Your task to perform on an android device: install app "VLC for Android" Image 0: 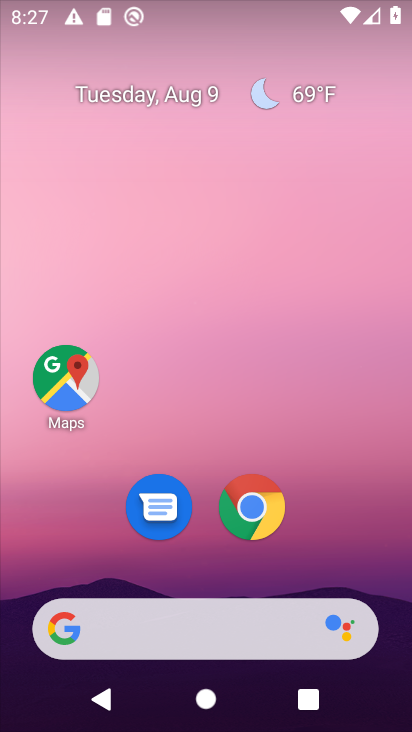
Step 0: drag from (203, 650) to (207, 231)
Your task to perform on an android device: install app "VLC for Android" Image 1: 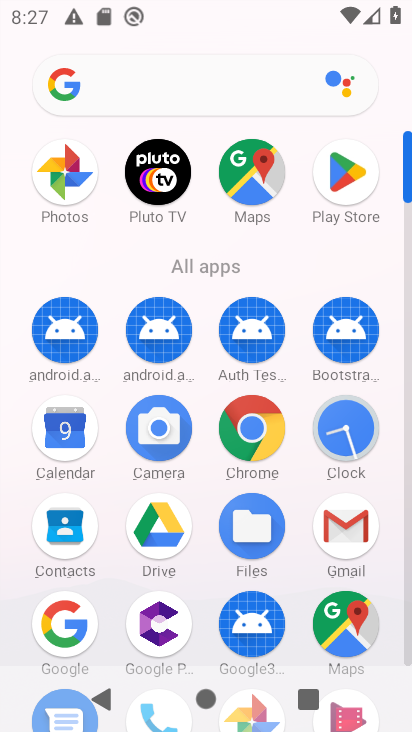
Step 1: click (347, 168)
Your task to perform on an android device: install app "VLC for Android" Image 2: 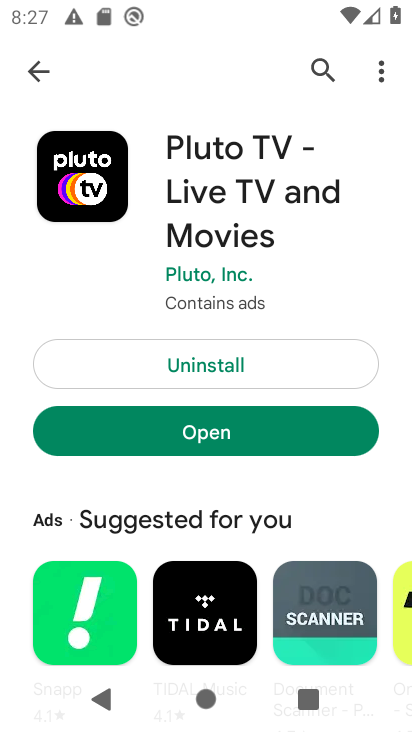
Step 2: click (330, 66)
Your task to perform on an android device: install app "VLC for Android" Image 3: 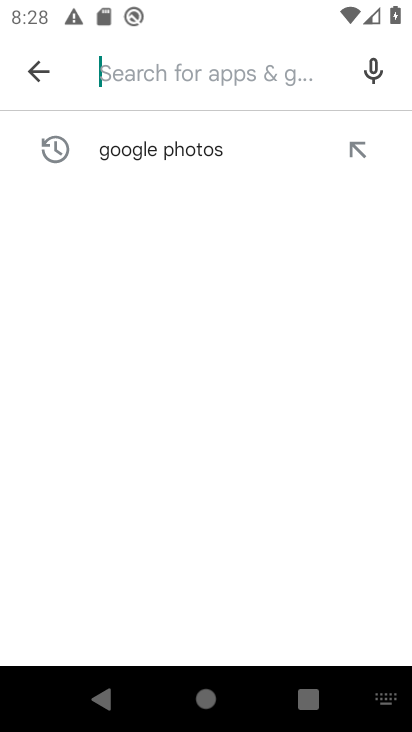
Step 3: type "VLC for Android"
Your task to perform on an android device: install app "VLC for Android" Image 4: 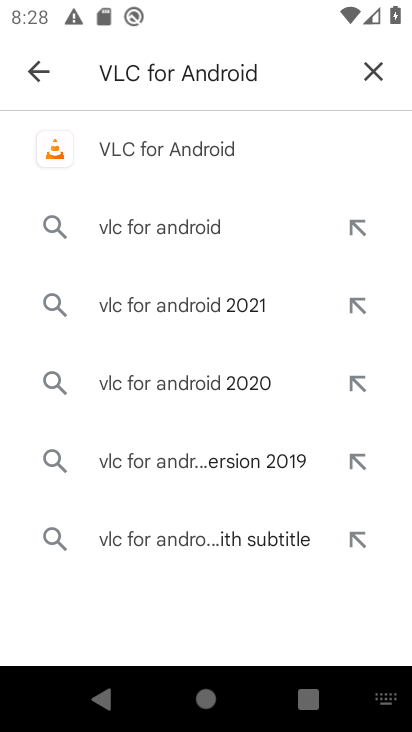
Step 4: click (211, 150)
Your task to perform on an android device: install app "VLC for Android" Image 5: 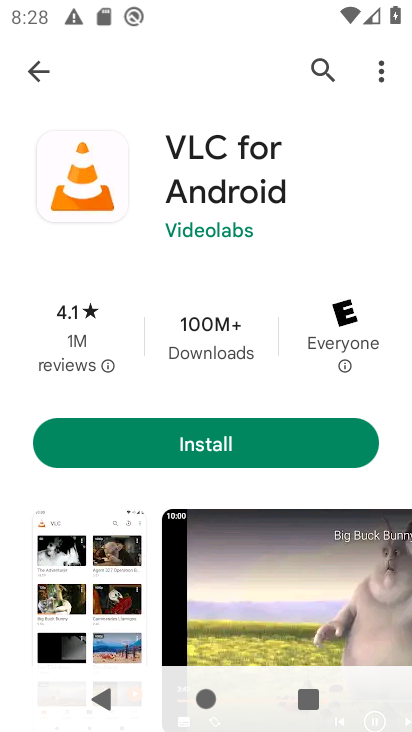
Step 5: click (211, 439)
Your task to perform on an android device: install app "VLC for Android" Image 6: 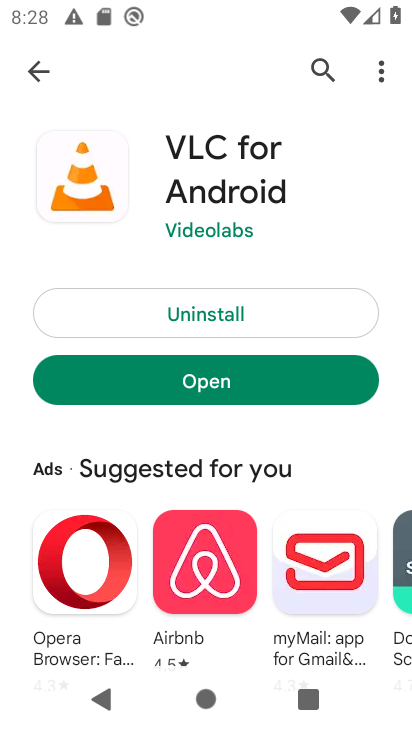
Step 6: task complete